Your task to perform on an android device: Open the phone app and click the voicemail tab. Image 0: 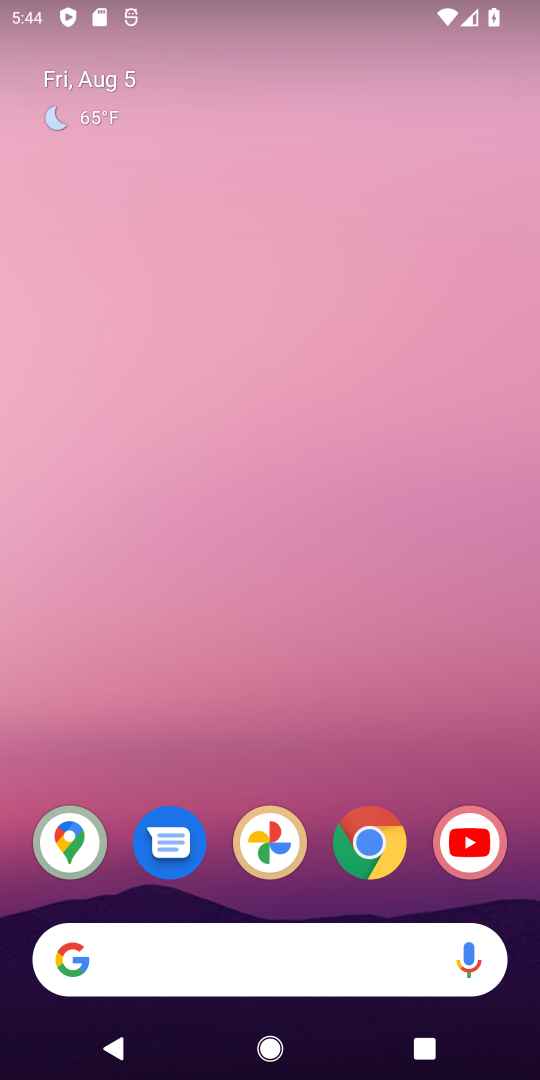
Step 0: drag from (53, 800) to (306, 272)
Your task to perform on an android device: Open the phone app and click the voicemail tab. Image 1: 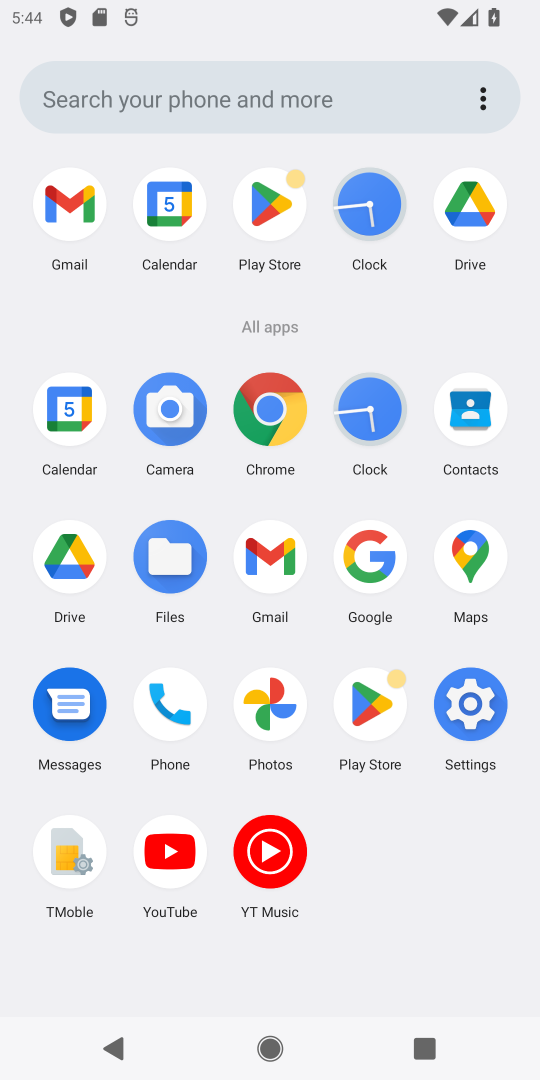
Step 1: click (167, 697)
Your task to perform on an android device: Open the phone app and click the voicemail tab. Image 2: 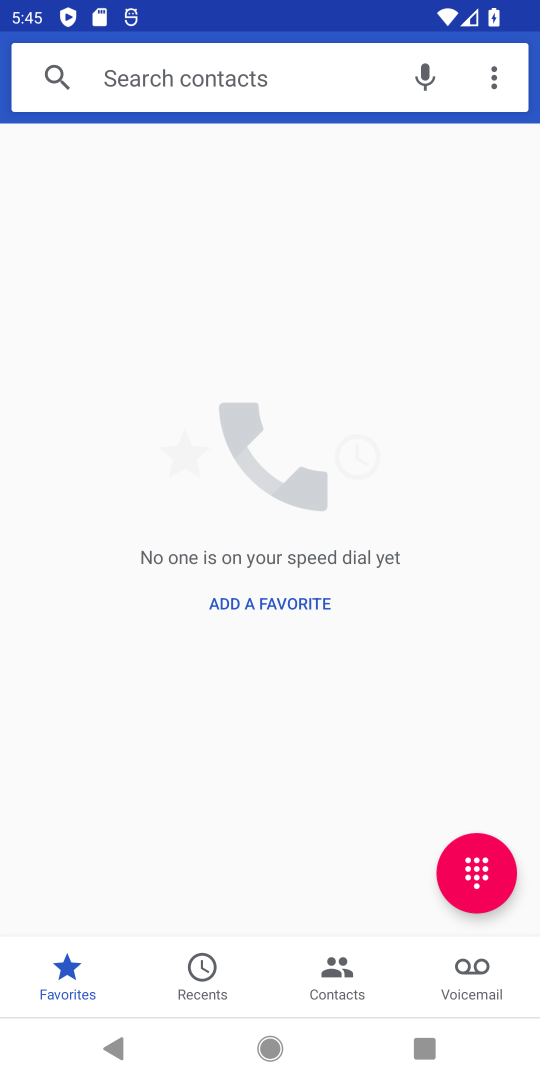
Step 2: click (476, 979)
Your task to perform on an android device: Open the phone app and click the voicemail tab. Image 3: 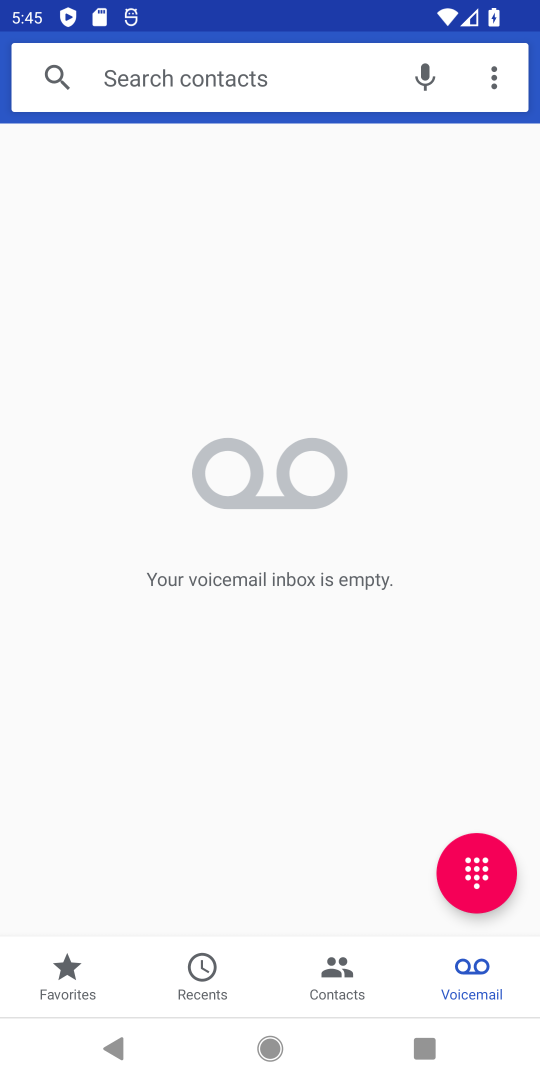
Step 3: task complete